Your task to perform on an android device: turn off improve location accuracy Image 0: 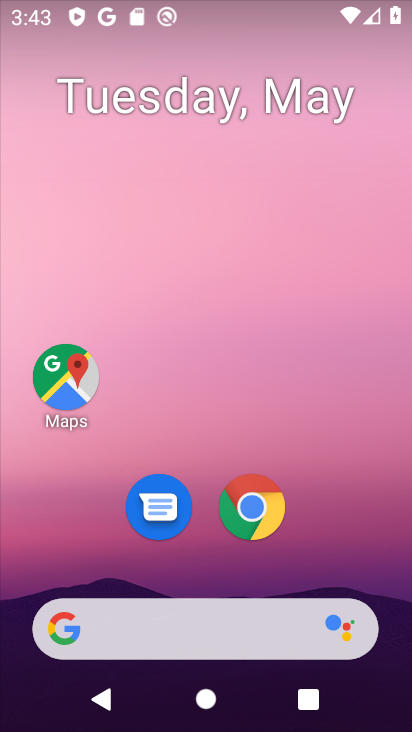
Step 0: drag from (208, 570) to (228, 74)
Your task to perform on an android device: turn off improve location accuracy Image 1: 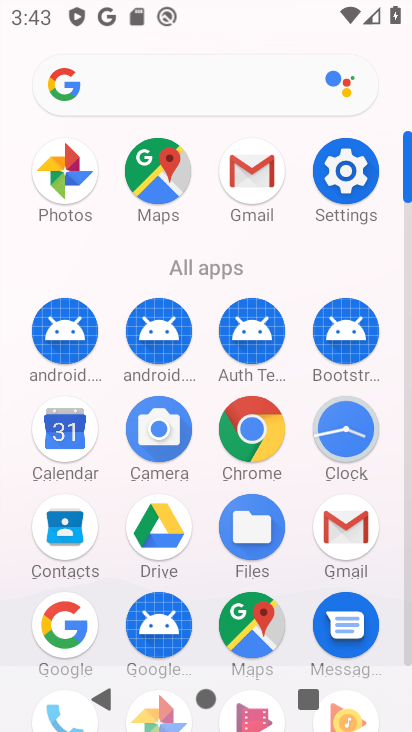
Step 1: click (346, 173)
Your task to perform on an android device: turn off improve location accuracy Image 2: 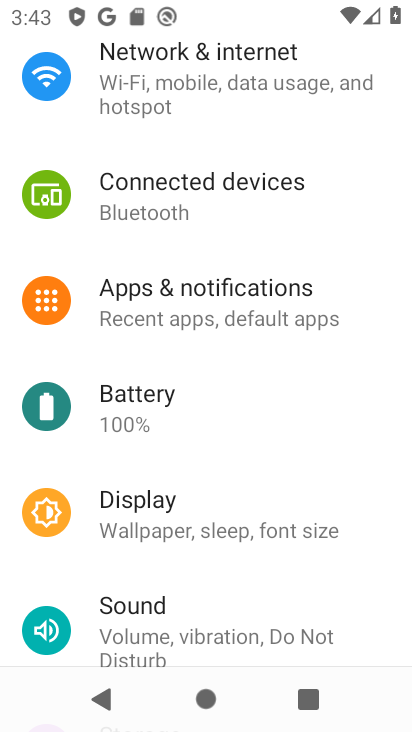
Step 2: drag from (195, 628) to (204, 195)
Your task to perform on an android device: turn off improve location accuracy Image 3: 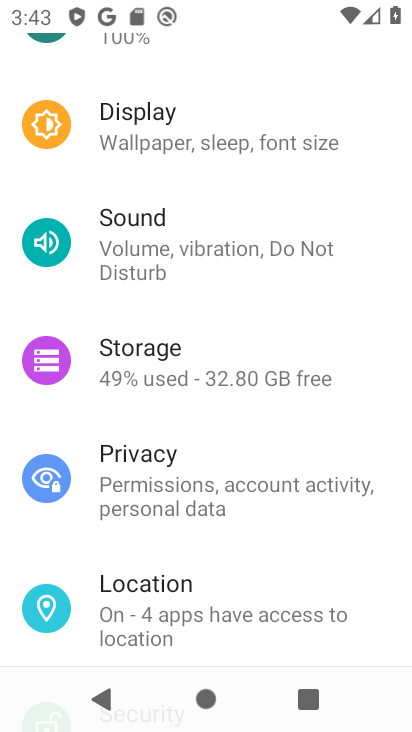
Step 3: click (145, 615)
Your task to perform on an android device: turn off improve location accuracy Image 4: 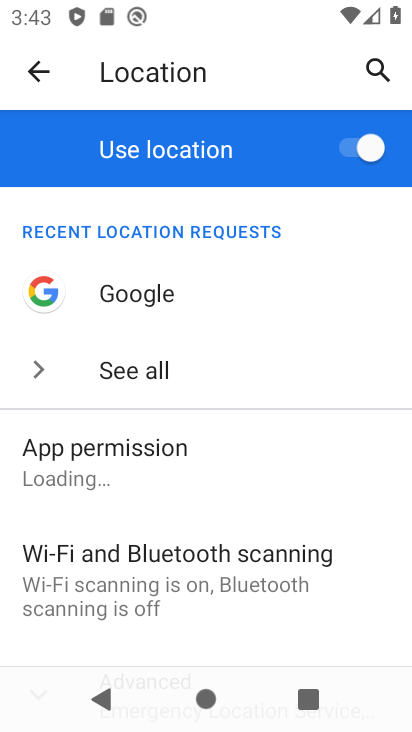
Step 4: click (147, 568)
Your task to perform on an android device: turn off improve location accuracy Image 5: 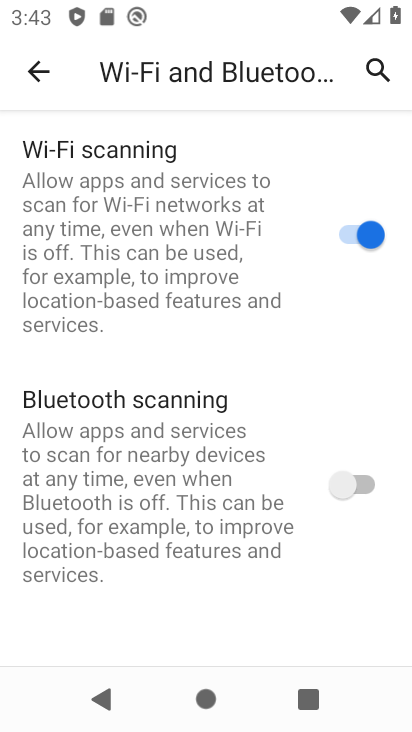
Step 5: press back button
Your task to perform on an android device: turn off improve location accuracy Image 6: 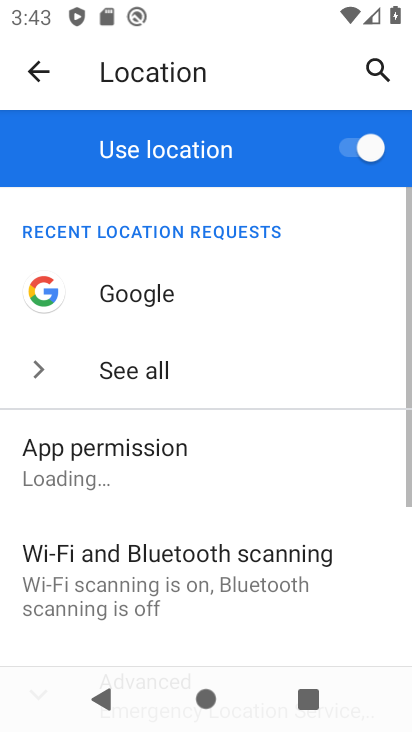
Step 6: drag from (264, 547) to (356, 21)
Your task to perform on an android device: turn off improve location accuracy Image 7: 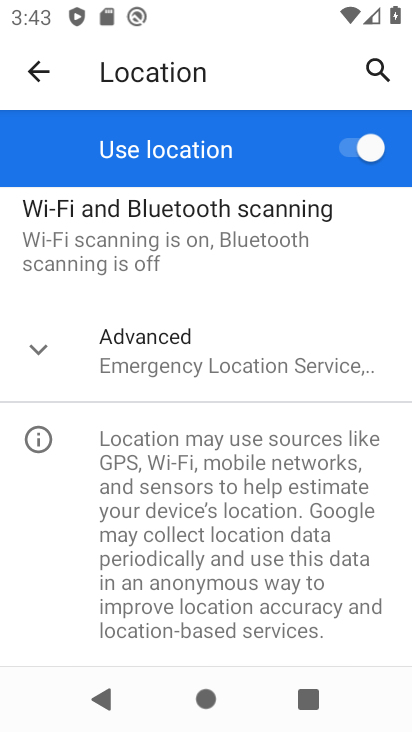
Step 7: click (158, 365)
Your task to perform on an android device: turn off improve location accuracy Image 8: 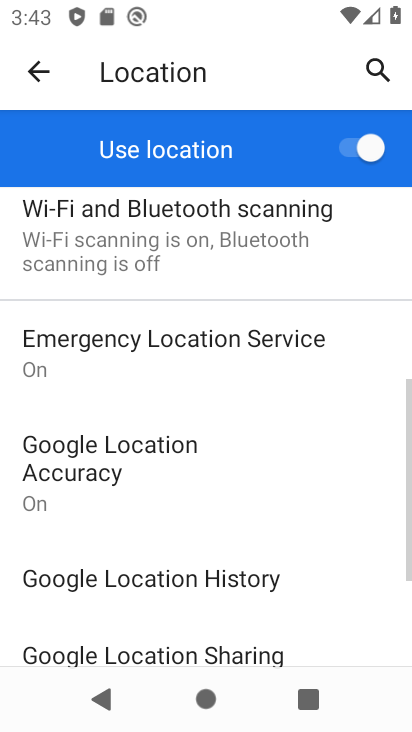
Step 8: click (143, 471)
Your task to perform on an android device: turn off improve location accuracy Image 9: 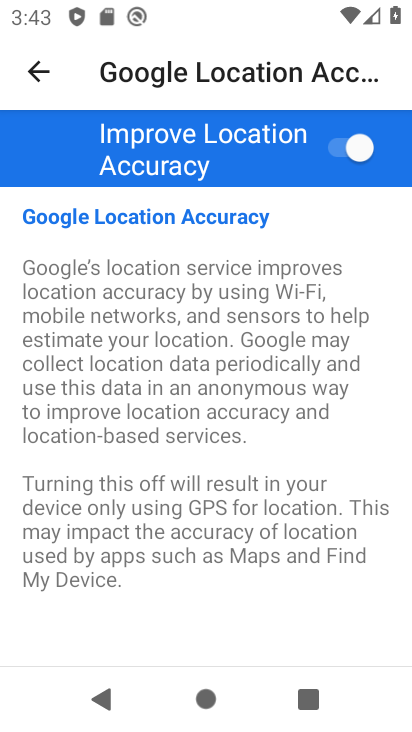
Step 9: click (345, 122)
Your task to perform on an android device: turn off improve location accuracy Image 10: 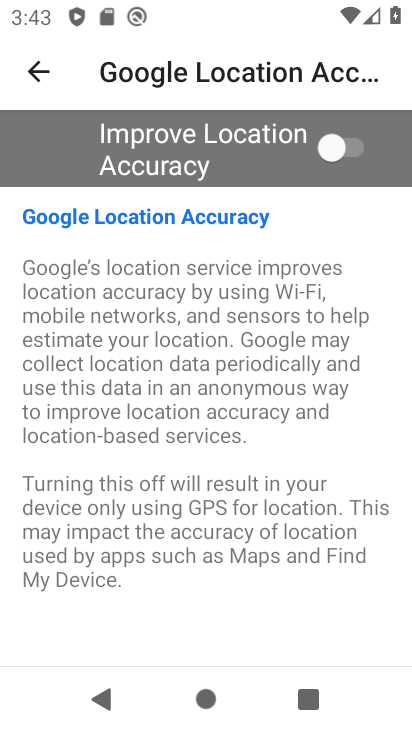
Step 10: task complete